Your task to perform on an android device: Go to accessibility settings Image 0: 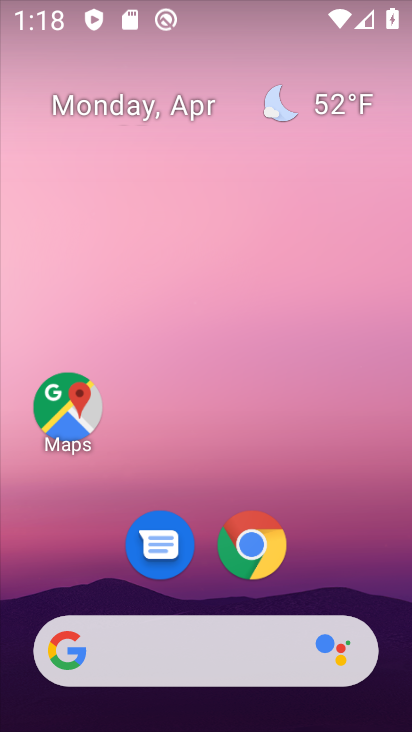
Step 0: drag from (219, 694) to (221, 150)
Your task to perform on an android device: Go to accessibility settings Image 1: 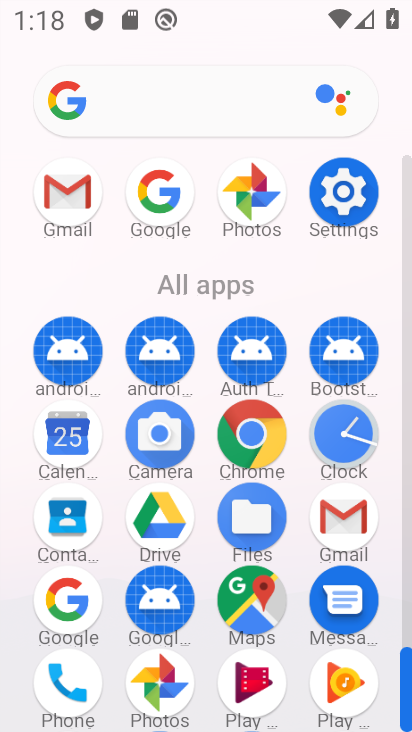
Step 1: click (336, 197)
Your task to perform on an android device: Go to accessibility settings Image 2: 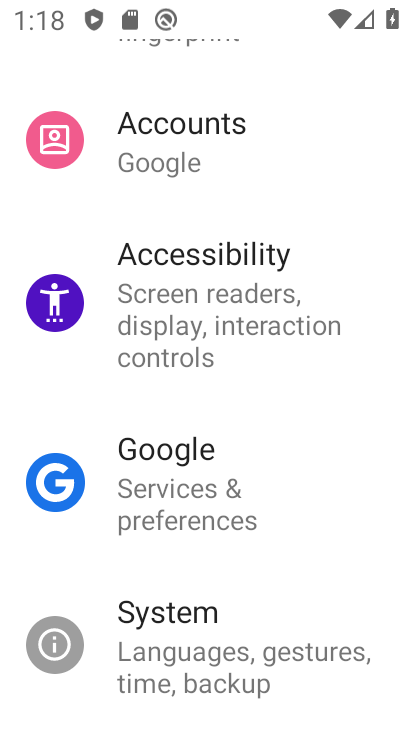
Step 2: click (182, 299)
Your task to perform on an android device: Go to accessibility settings Image 3: 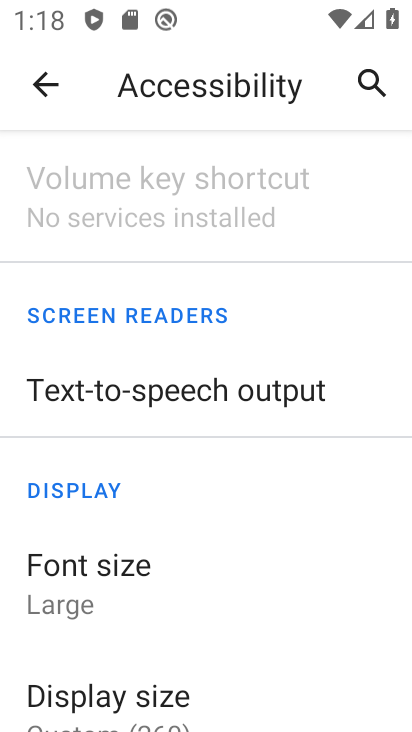
Step 3: task complete